Your task to perform on an android device: star an email in the gmail app Image 0: 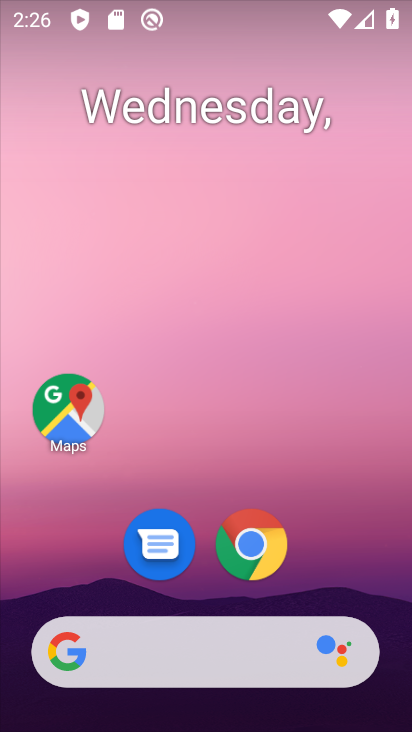
Step 0: drag from (76, 610) to (216, 169)
Your task to perform on an android device: star an email in the gmail app Image 1: 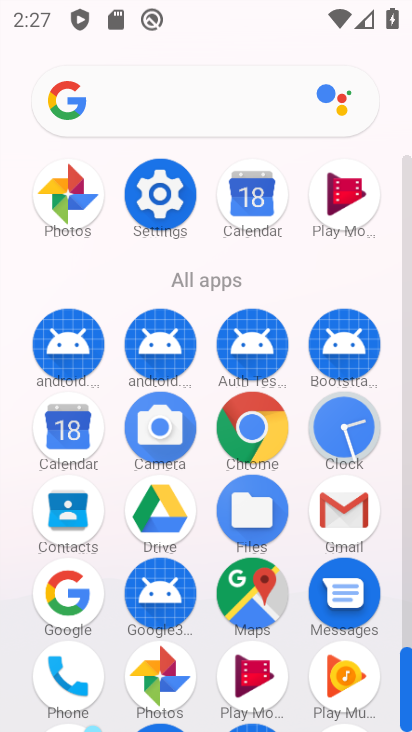
Step 1: click (355, 526)
Your task to perform on an android device: star an email in the gmail app Image 2: 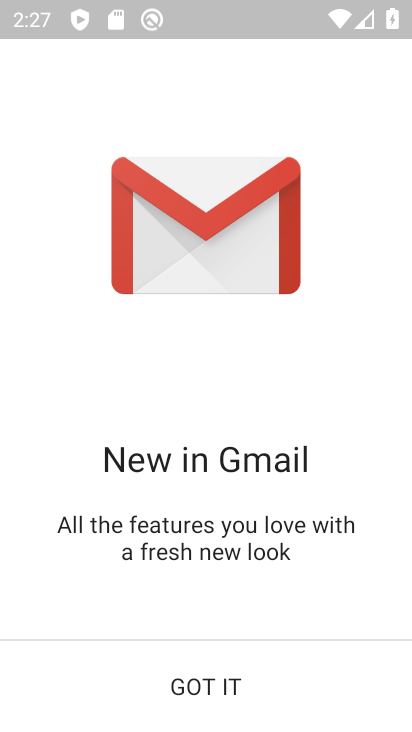
Step 2: click (263, 678)
Your task to perform on an android device: star an email in the gmail app Image 3: 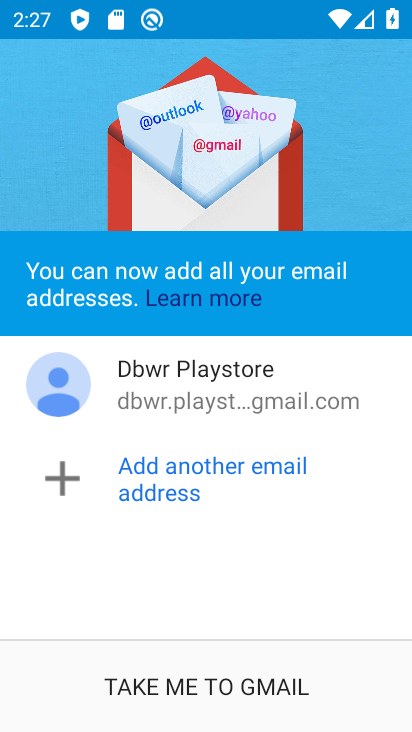
Step 3: click (263, 678)
Your task to perform on an android device: star an email in the gmail app Image 4: 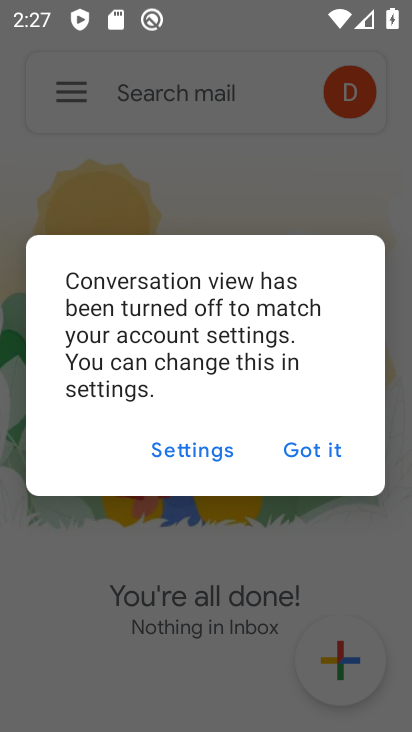
Step 4: click (338, 460)
Your task to perform on an android device: star an email in the gmail app Image 5: 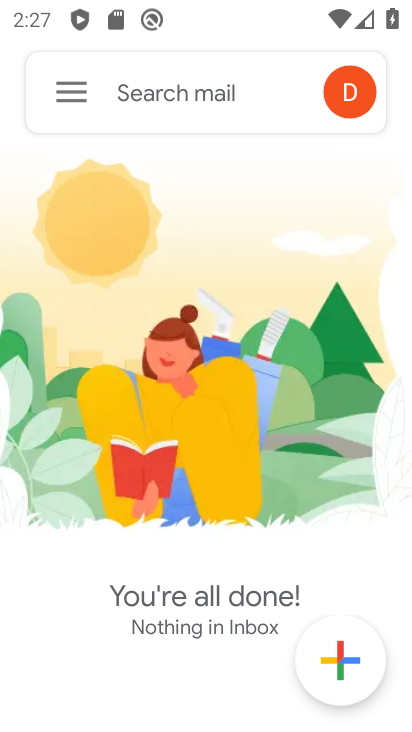
Step 5: click (65, 88)
Your task to perform on an android device: star an email in the gmail app Image 6: 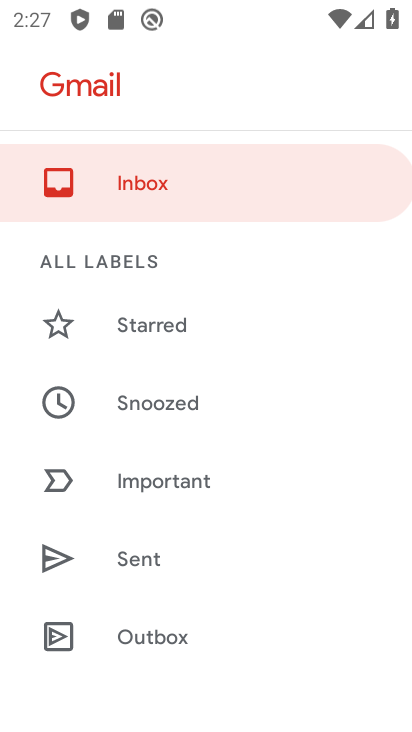
Step 6: drag from (121, 568) to (250, 270)
Your task to perform on an android device: star an email in the gmail app Image 7: 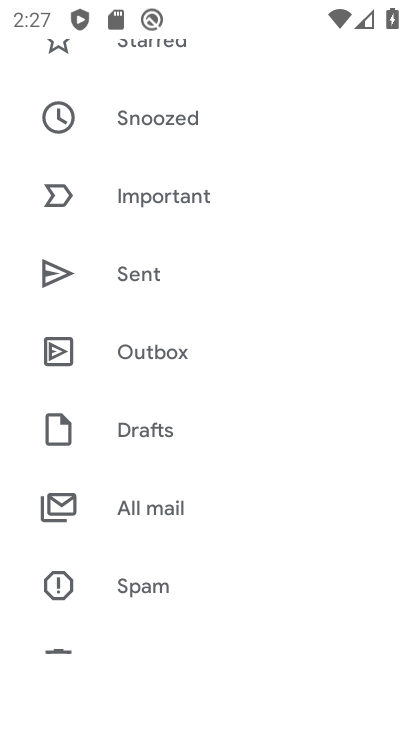
Step 7: click (208, 515)
Your task to perform on an android device: star an email in the gmail app Image 8: 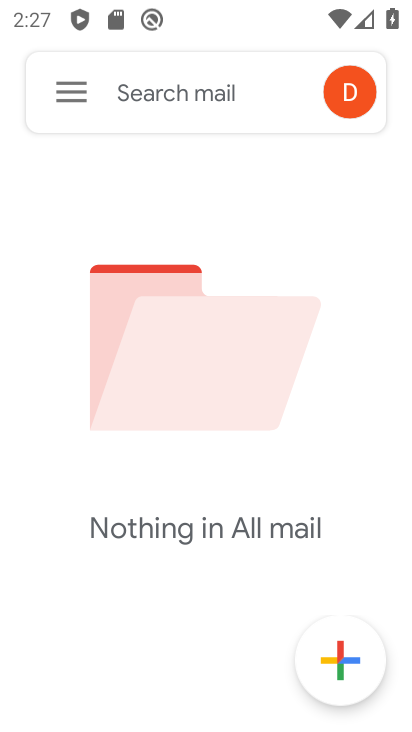
Step 8: task complete